Your task to perform on an android device: move an email to a new category in the gmail app Image 0: 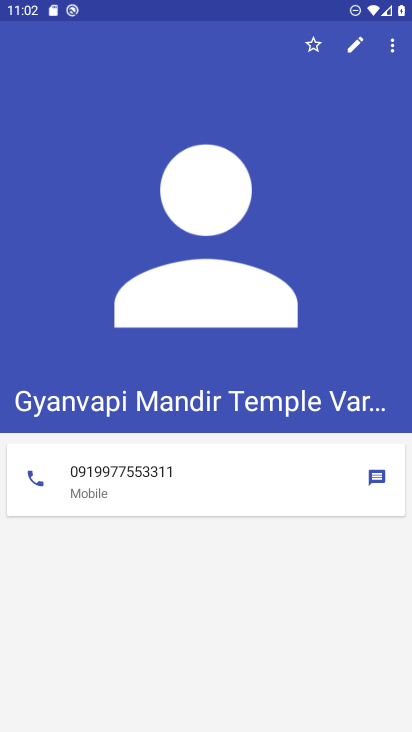
Step 0: press home button
Your task to perform on an android device: move an email to a new category in the gmail app Image 1: 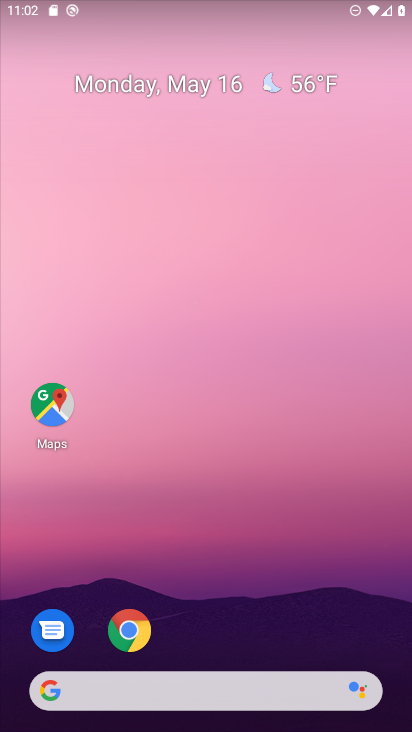
Step 1: drag from (201, 529) to (201, 0)
Your task to perform on an android device: move an email to a new category in the gmail app Image 2: 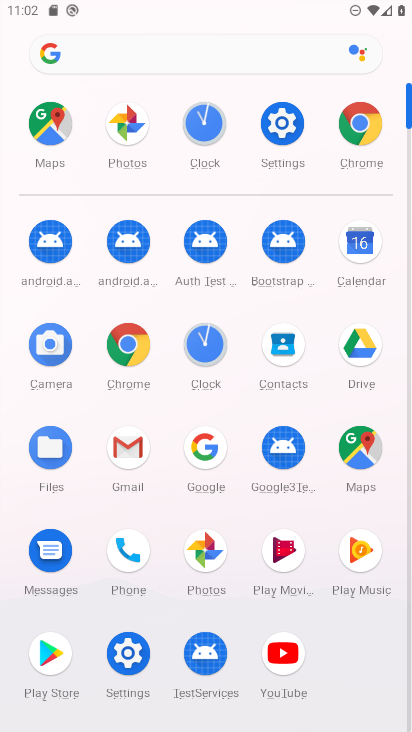
Step 2: click (138, 450)
Your task to perform on an android device: move an email to a new category in the gmail app Image 3: 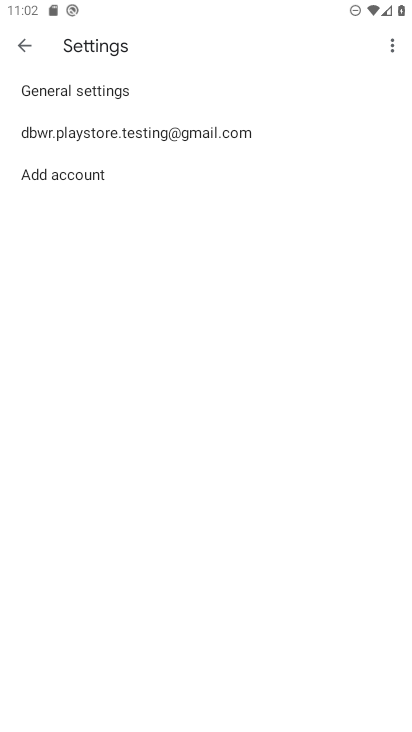
Step 3: click (25, 37)
Your task to perform on an android device: move an email to a new category in the gmail app Image 4: 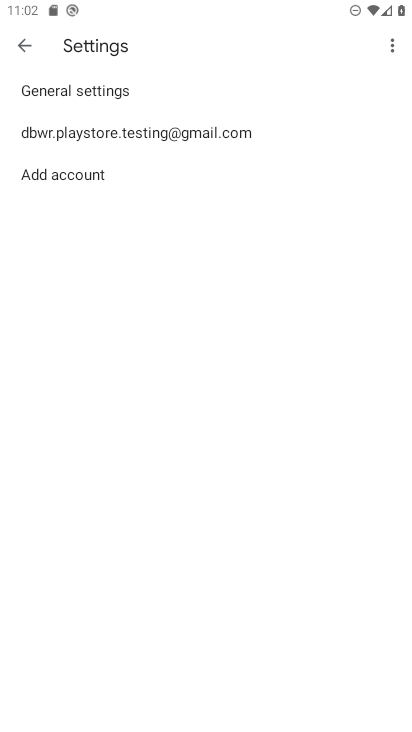
Step 4: click (22, 42)
Your task to perform on an android device: move an email to a new category in the gmail app Image 5: 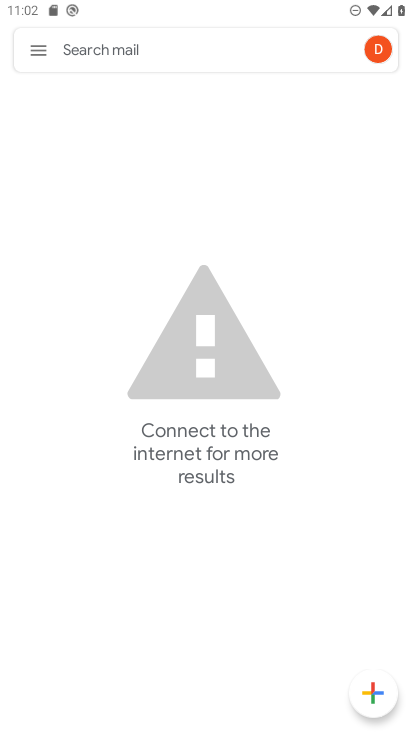
Step 5: click (37, 45)
Your task to perform on an android device: move an email to a new category in the gmail app Image 6: 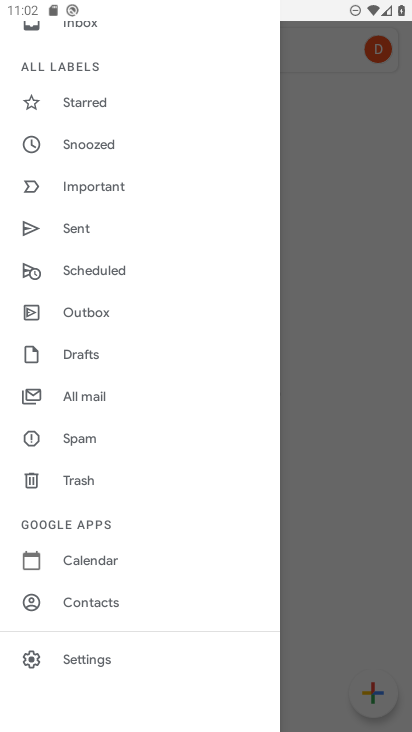
Step 6: click (102, 398)
Your task to perform on an android device: move an email to a new category in the gmail app Image 7: 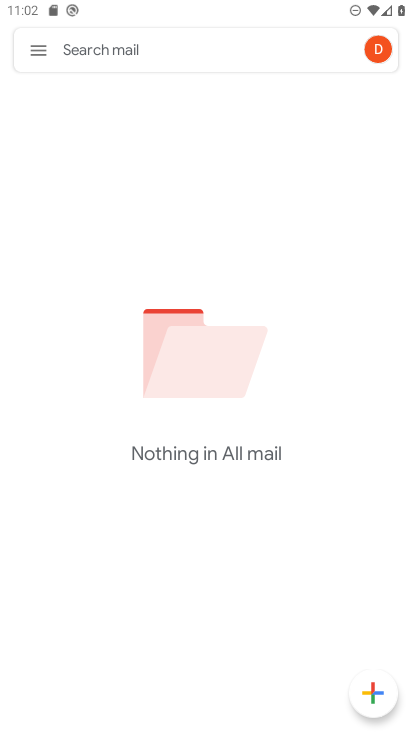
Step 7: task complete